Your task to perform on an android device: check android version Image 0: 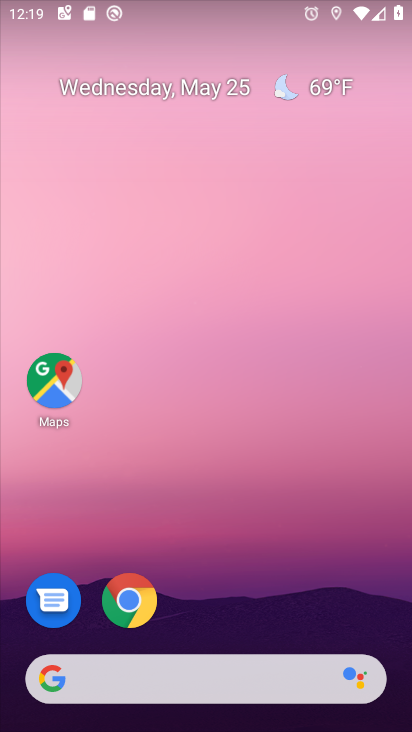
Step 0: drag from (379, 615) to (358, 89)
Your task to perform on an android device: check android version Image 1: 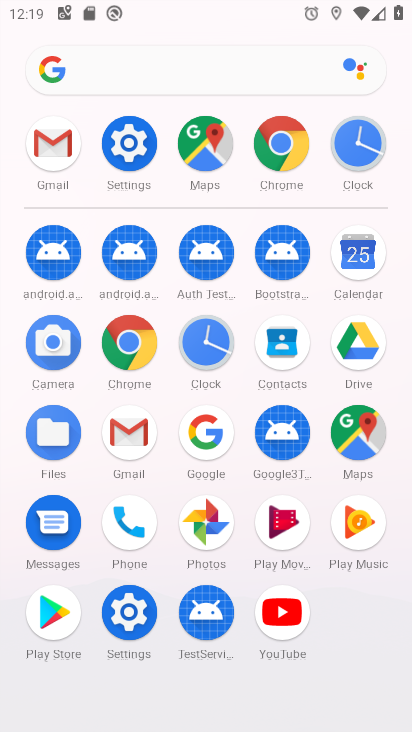
Step 1: click (131, 614)
Your task to perform on an android device: check android version Image 2: 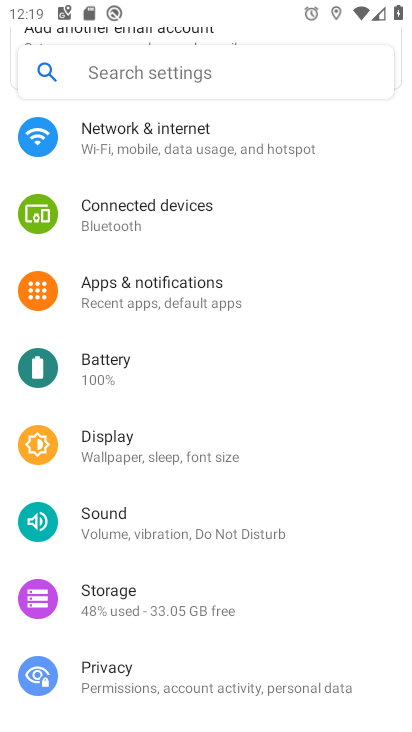
Step 2: drag from (356, 616) to (344, 425)
Your task to perform on an android device: check android version Image 3: 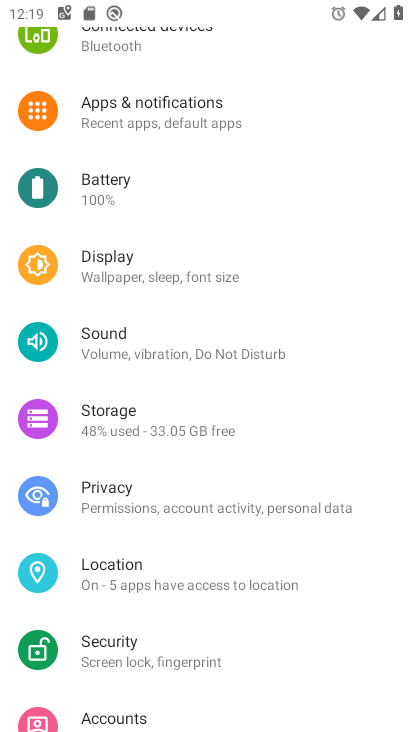
Step 3: drag from (341, 627) to (343, 488)
Your task to perform on an android device: check android version Image 4: 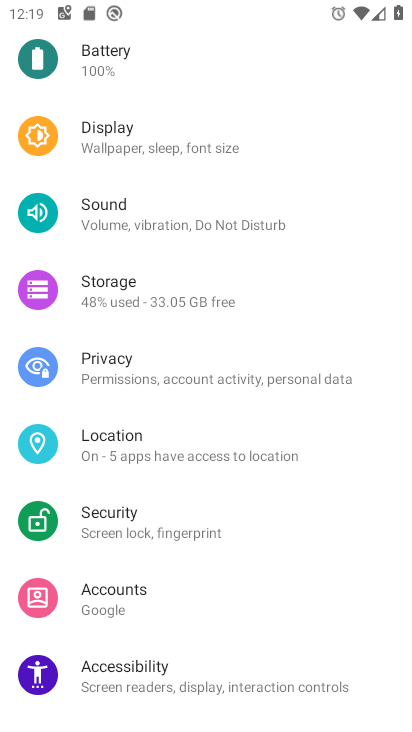
Step 4: drag from (331, 645) to (322, 523)
Your task to perform on an android device: check android version Image 5: 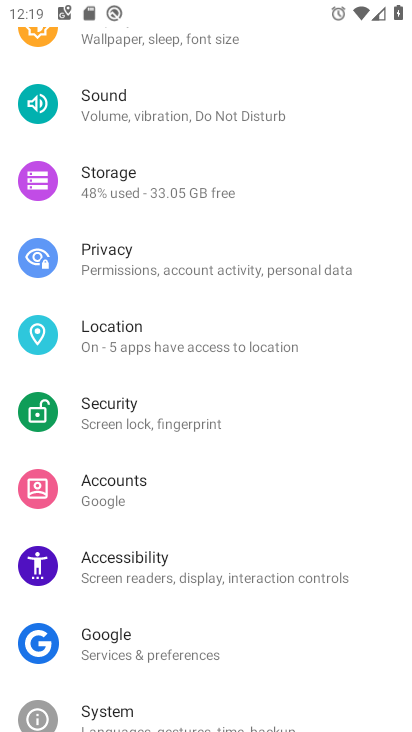
Step 5: drag from (337, 682) to (349, 518)
Your task to perform on an android device: check android version Image 6: 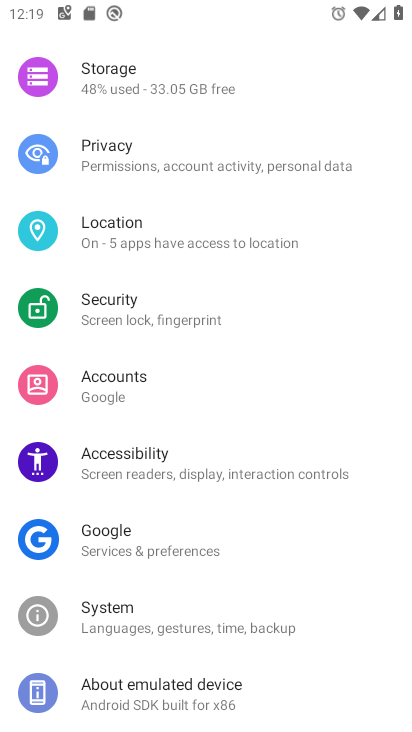
Step 6: click (246, 627)
Your task to perform on an android device: check android version Image 7: 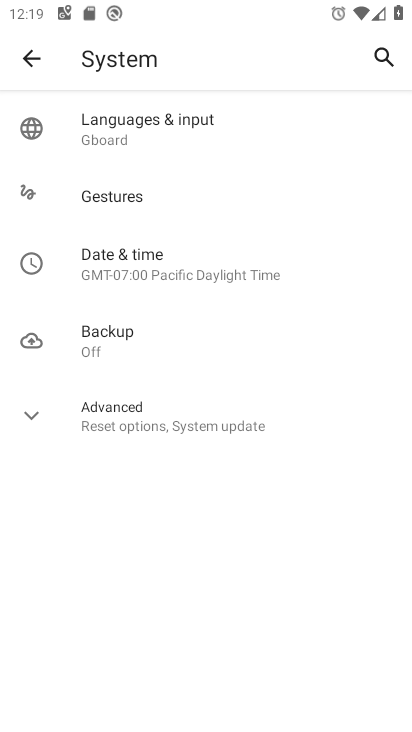
Step 7: click (228, 409)
Your task to perform on an android device: check android version Image 8: 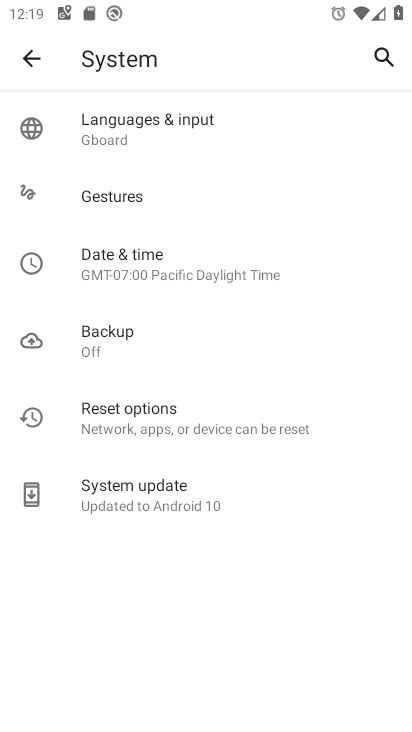
Step 8: click (167, 504)
Your task to perform on an android device: check android version Image 9: 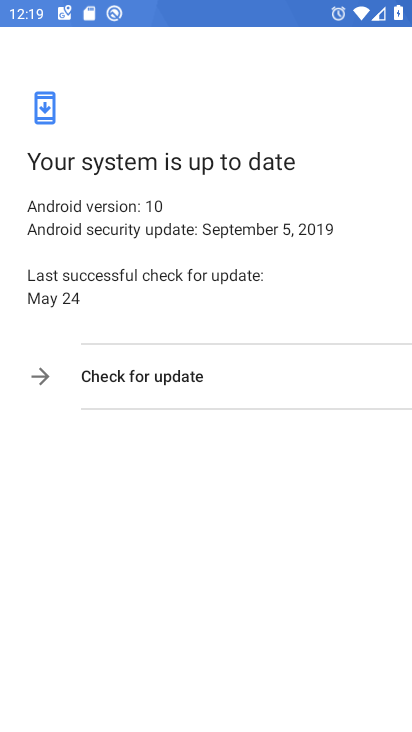
Step 9: task complete